Your task to perform on an android device: Turn off the flashlight Image 0: 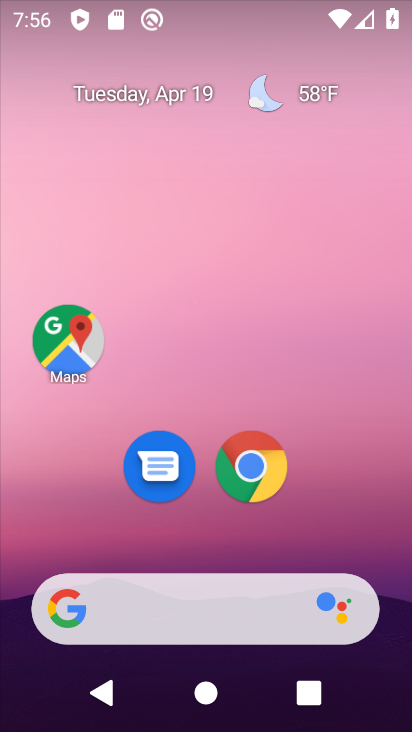
Step 0: drag from (320, 510) to (393, 155)
Your task to perform on an android device: Turn off the flashlight Image 1: 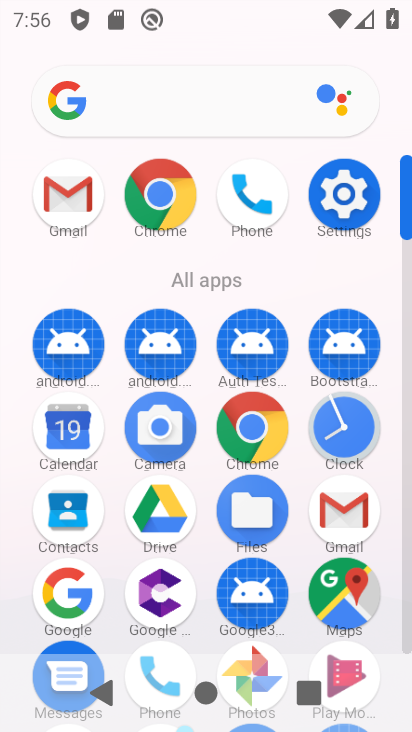
Step 1: click (344, 190)
Your task to perform on an android device: Turn off the flashlight Image 2: 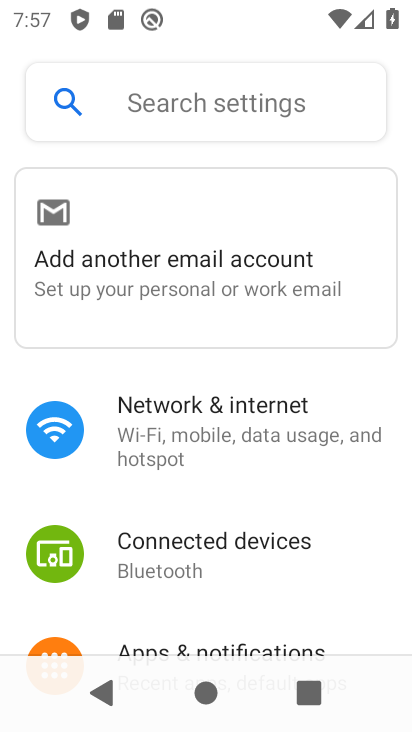
Step 2: drag from (336, 581) to (331, 55)
Your task to perform on an android device: Turn off the flashlight Image 3: 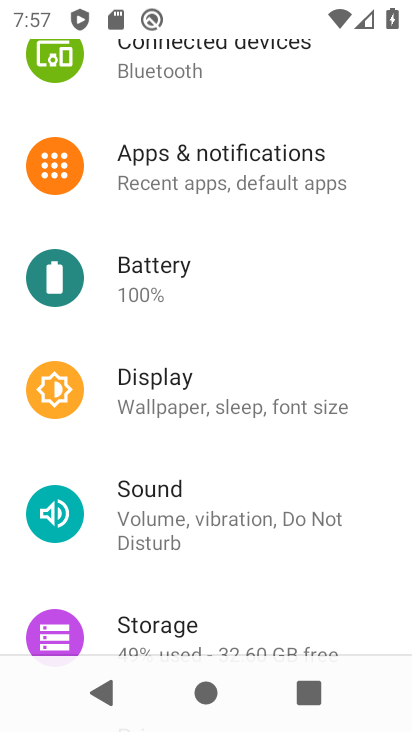
Step 3: drag from (264, 575) to (304, 69)
Your task to perform on an android device: Turn off the flashlight Image 4: 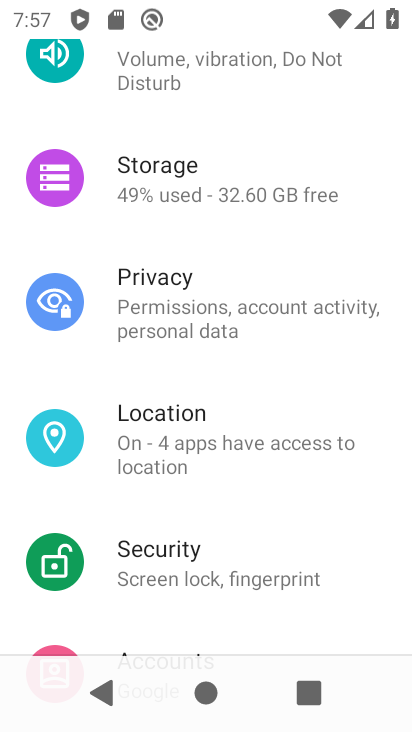
Step 4: drag from (278, 470) to (234, 539)
Your task to perform on an android device: Turn off the flashlight Image 5: 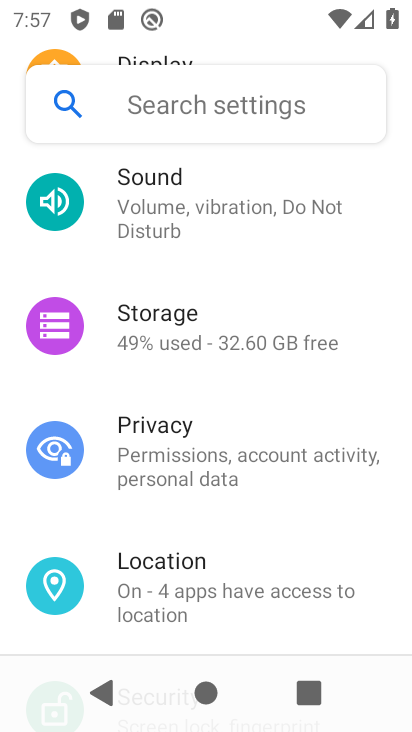
Step 5: drag from (236, 215) to (191, 607)
Your task to perform on an android device: Turn off the flashlight Image 6: 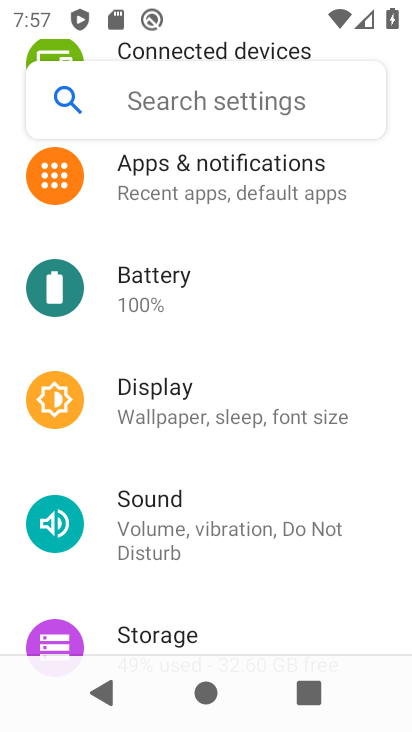
Step 6: drag from (406, 470) to (401, 548)
Your task to perform on an android device: Turn off the flashlight Image 7: 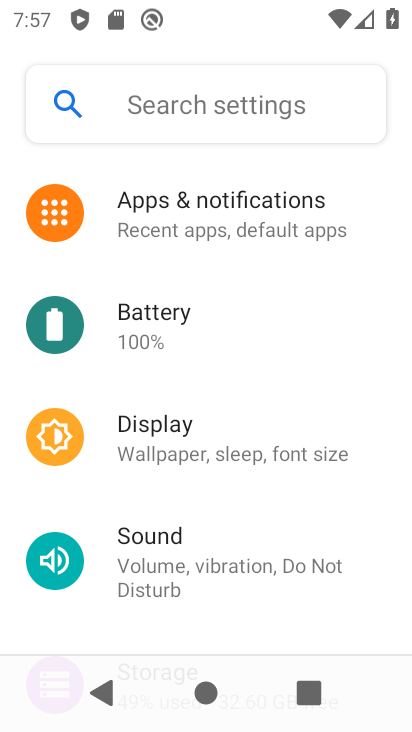
Step 7: click (404, 540)
Your task to perform on an android device: Turn off the flashlight Image 8: 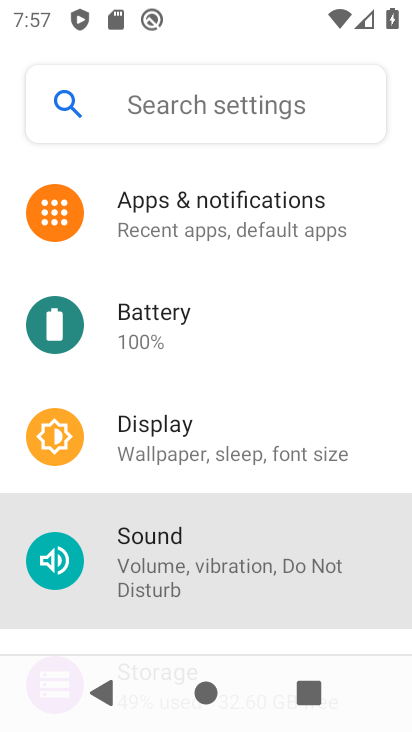
Step 8: task complete